Your task to perform on an android device: Go to internet settings Image 0: 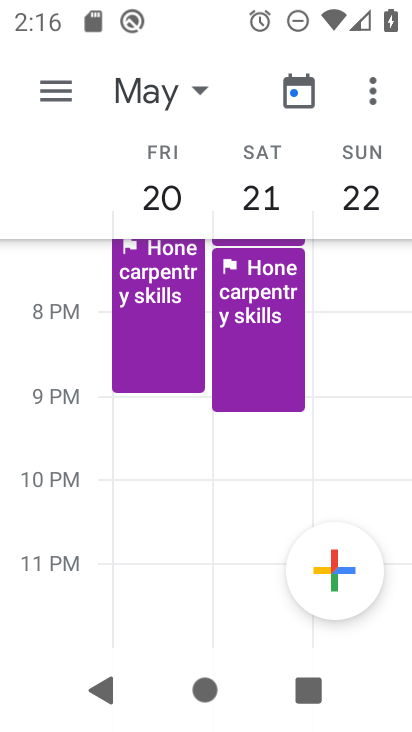
Step 0: press home button
Your task to perform on an android device: Go to internet settings Image 1: 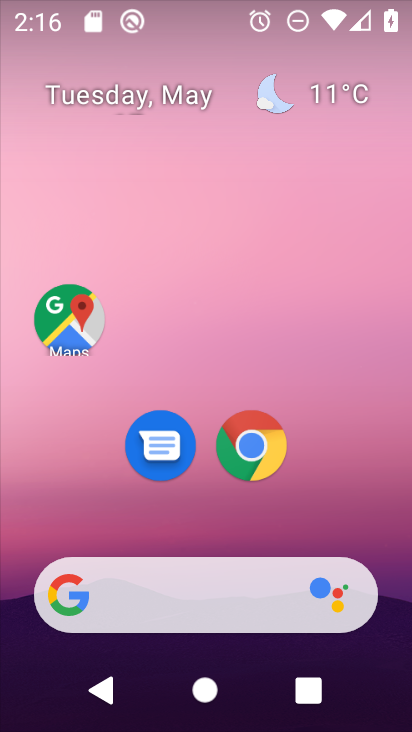
Step 1: drag from (369, 500) to (307, 4)
Your task to perform on an android device: Go to internet settings Image 2: 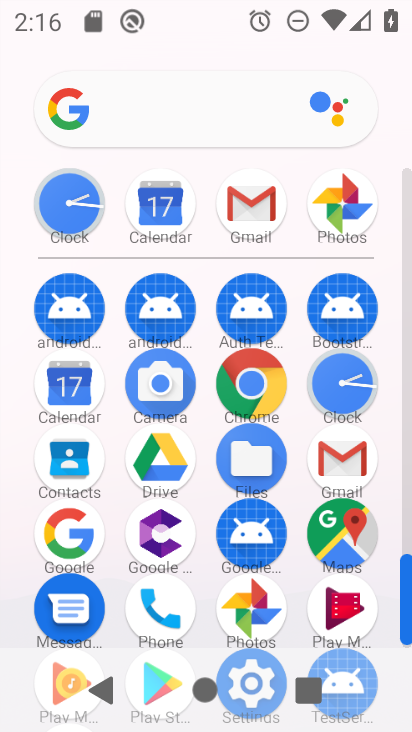
Step 2: drag from (203, 437) to (176, 236)
Your task to perform on an android device: Go to internet settings Image 3: 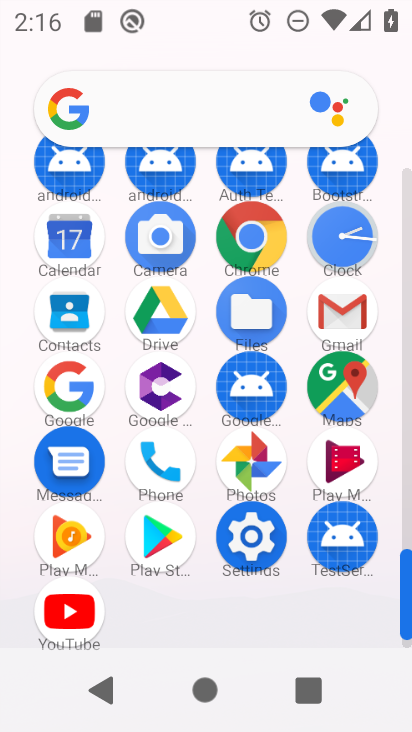
Step 3: click (277, 547)
Your task to perform on an android device: Go to internet settings Image 4: 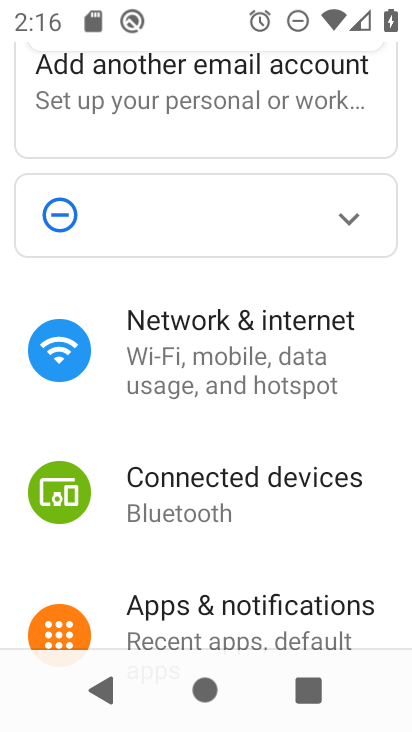
Step 4: click (254, 338)
Your task to perform on an android device: Go to internet settings Image 5: 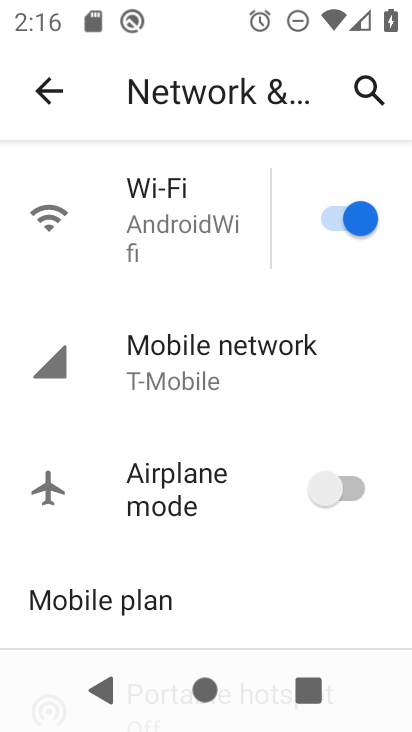
Step 5: task complete